Your task to perform on an android device: open sync settings in chrome Image 0: 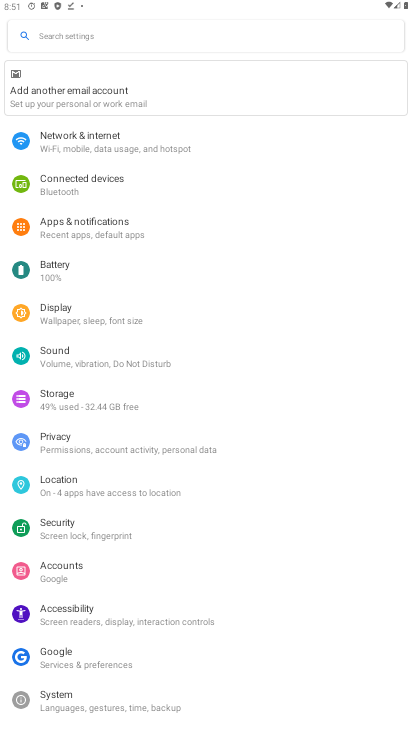
Step 0: press home button
Your task to perform on an android device: open sync settings in chrome Image 1: 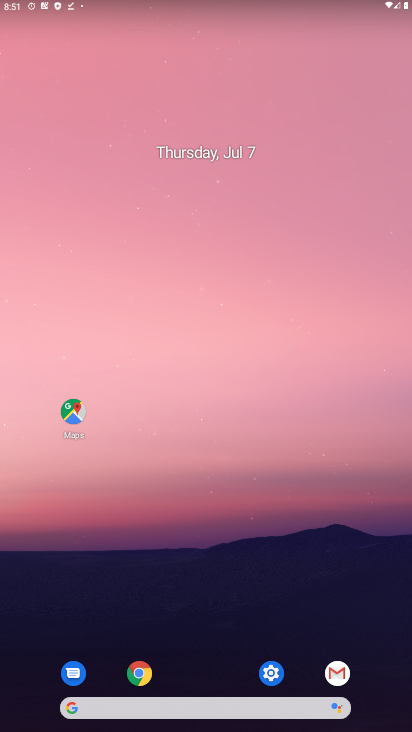
Step 1: click (144, 675)
Your task to perform on an android device: open sync settings in chrome Image 2: 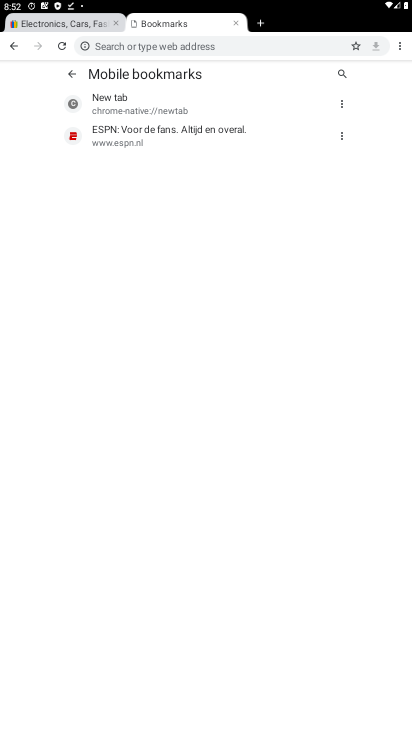
Step 2: click (399, 40)
Your task to perform on an android device: open sync settings in chrome Image 3: 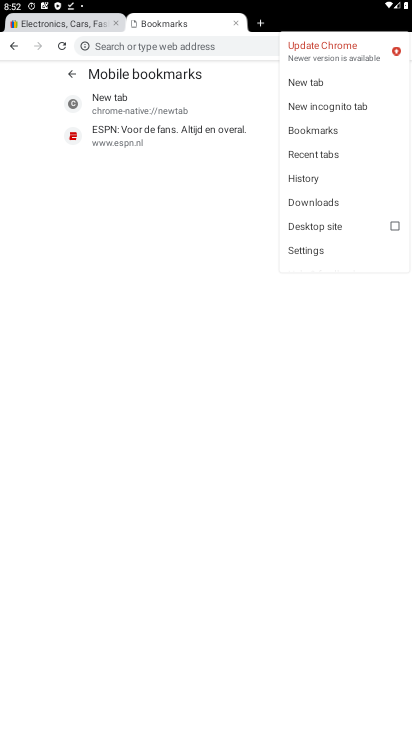
Step 3: click (305, 247)
Your task to perform on an android device: open sync settings in chrome Image 4: 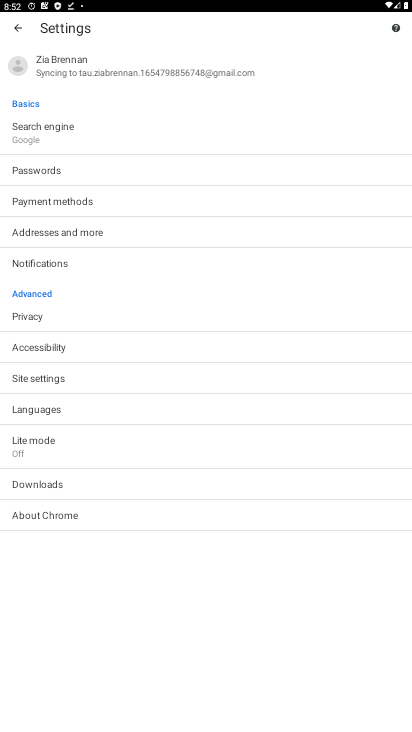
Step 4: click (61, 368)
Your task to perform on an android device: open sync settings in chrome Image 5: 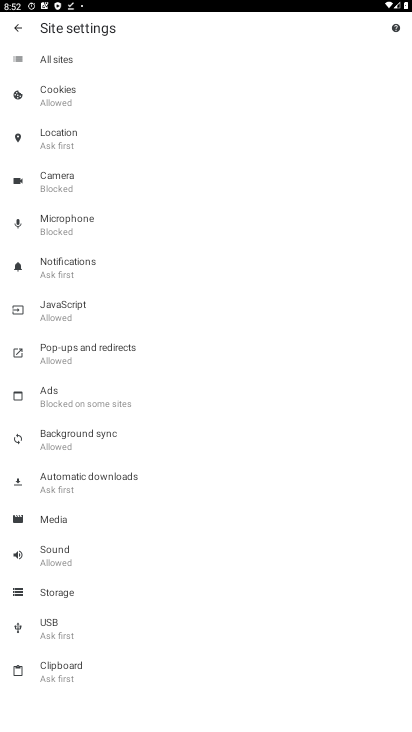
Step 5: click (95, 440)
Your task to perform on an android device: open sync settings in chrome Image 6: 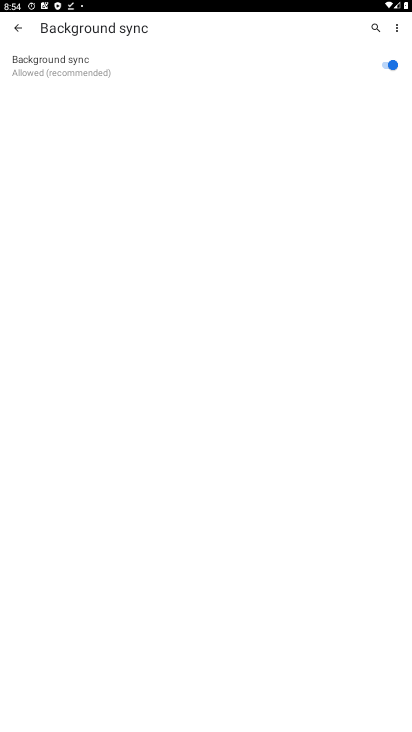
Step 6: task complete